Your task to perform on an android device: Open Google Maps Image 0: 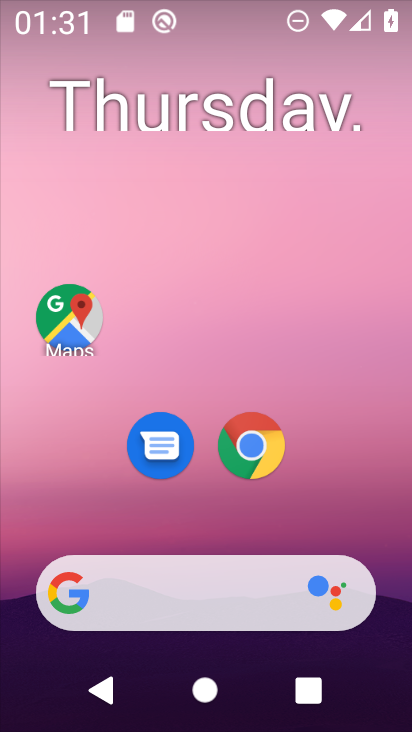
Step 0: click (81, 309)
Your task to perform on an android device: Open Google Maps Image 1: 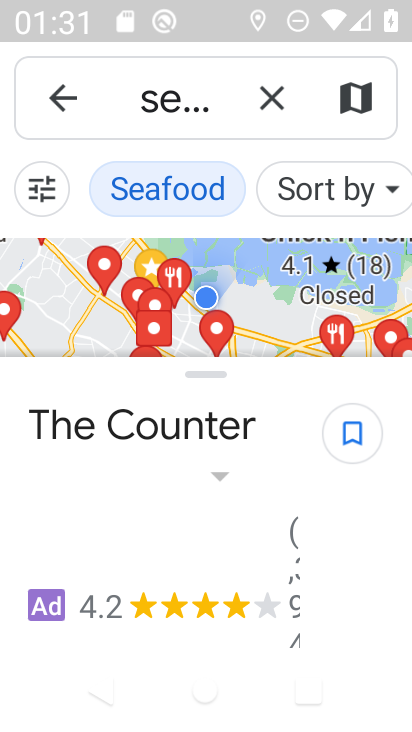
Step 1: task complete